Your task to perform on an android device: toggle javascript in the chrome app Image 0: 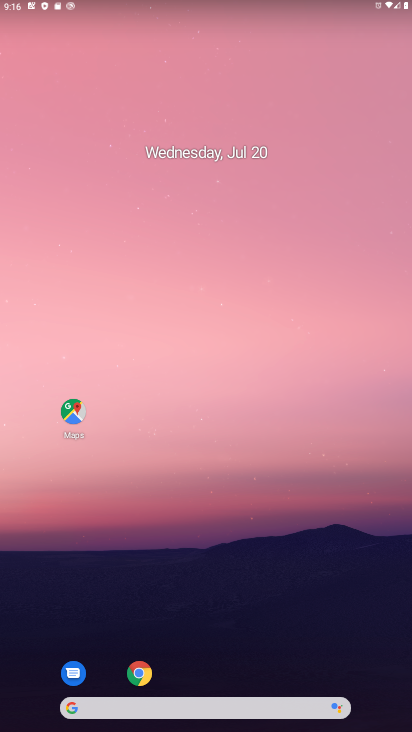
Step 0: drag from (205, 731) to (217, 237)
Your task to perform on an android device: toggle javascript in the chrome app Image 1: 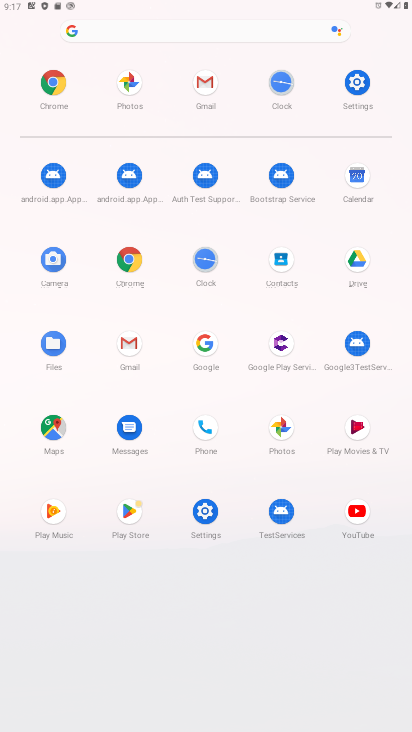
Step 1: click (133, 256)
Your task to perform on an android device: toggle javascript in the chrome app Image 2: 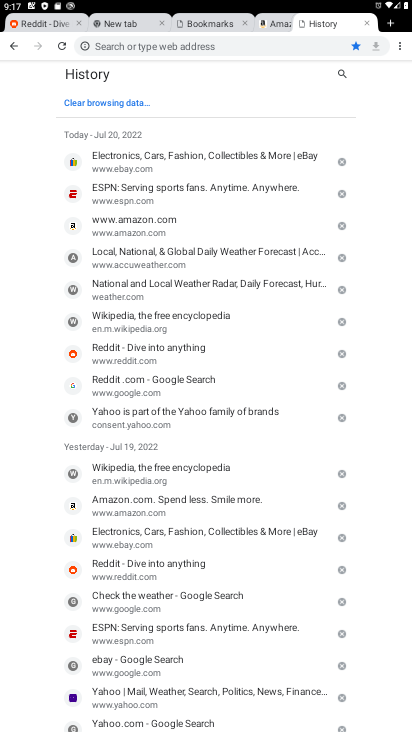
Step 2: click (399, 47)
Your task to perform on an android device: toggle javascript in the chrome app Image 3: 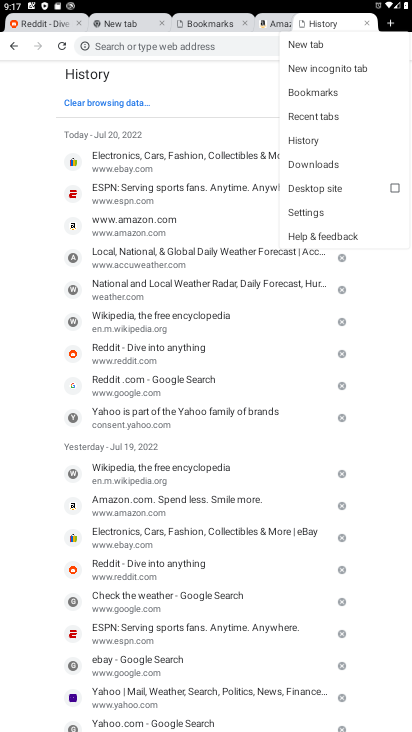
Step 3: click (318, 211)
Your task to perform on an android device: toggle javascript in the chrome app Image 4: 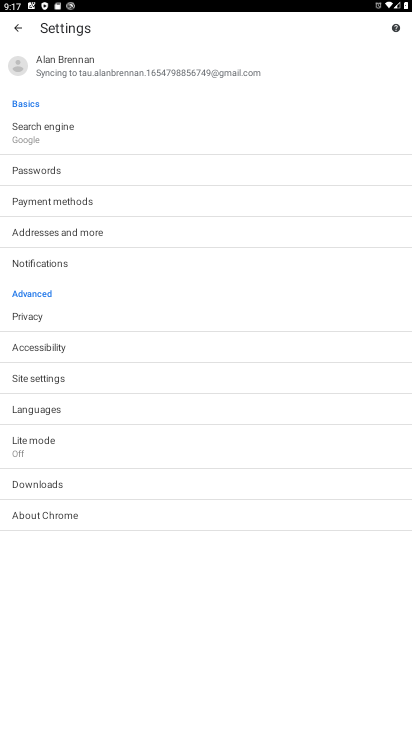
Step 4: click (51, 375)
Your task to perform on an android device: toggle javascript in the chrome app Image 5: 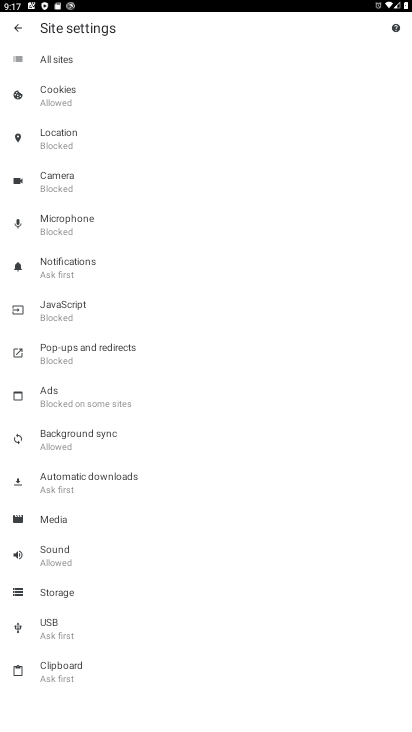
Step 5: click (59, 311)
Your task to perform on an android device: toggle javascript in the chrome app Image 6: 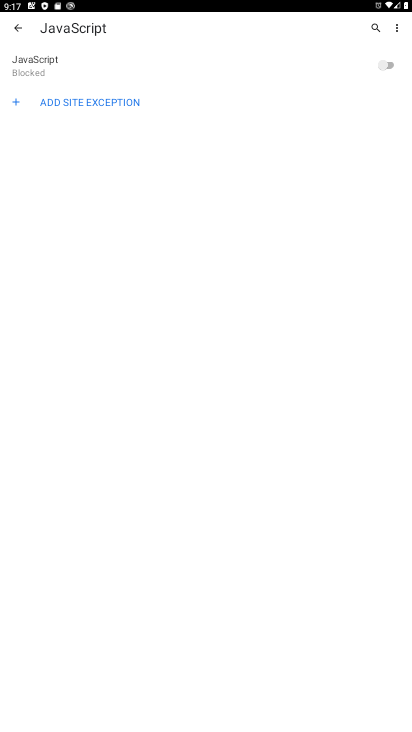
Step 6: click (390, 63)
Your task to perform on an android device: toggle javascript in the chrome app Image 7: 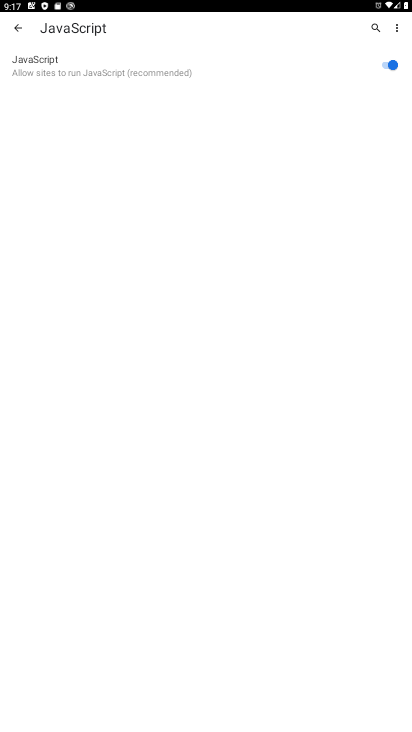
Step 7: task complete